Your task to perform on an android device: Open eBay Image 0: 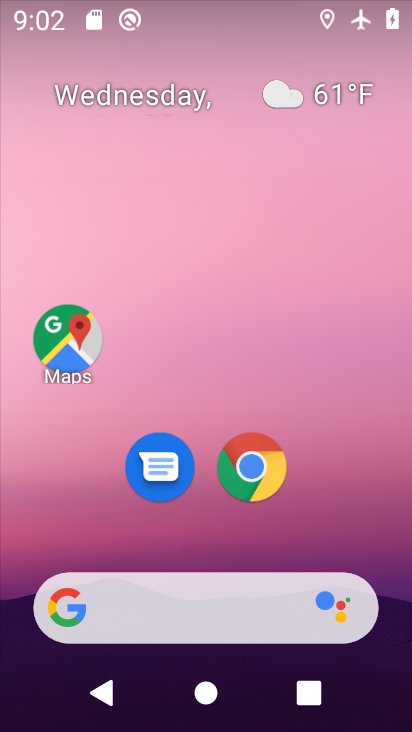
Step 0: drag from (295, 412) to (315, 74)
Your task to perform on an android device: Open eBay Image 1: 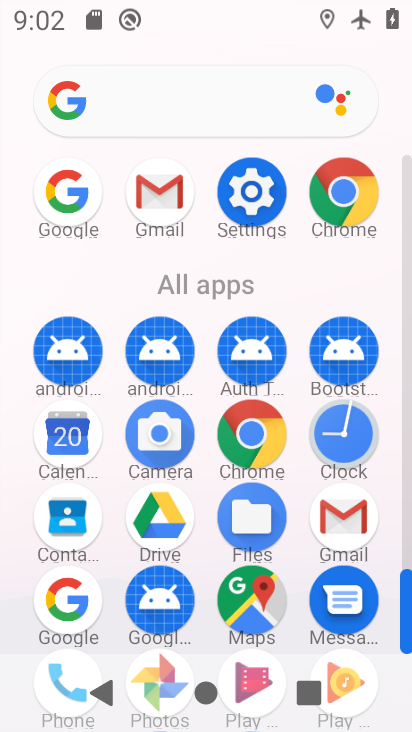
Step 1: click (360, 190)
Your task to perform on an android device: Open eBay Image 2: 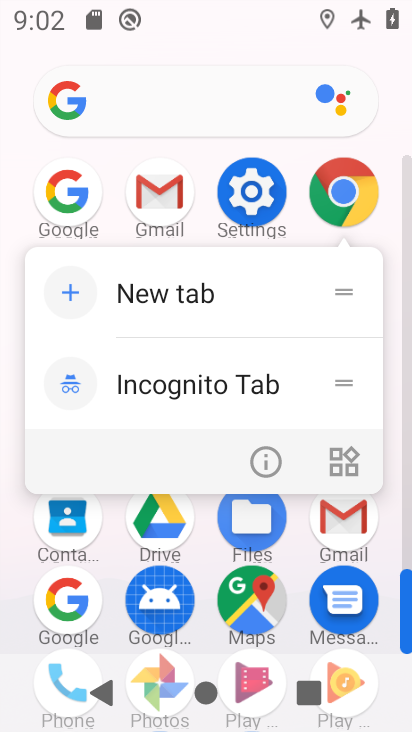
Step 2: click (360, 189)
Your task to perform on an android device: Open eBay Image 3: 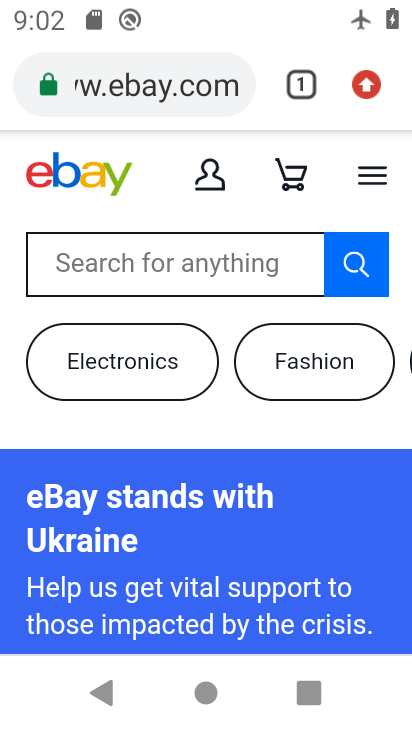
Step 3: task complete